Your task to perform on an android device: Open Reddit.com Image 0: 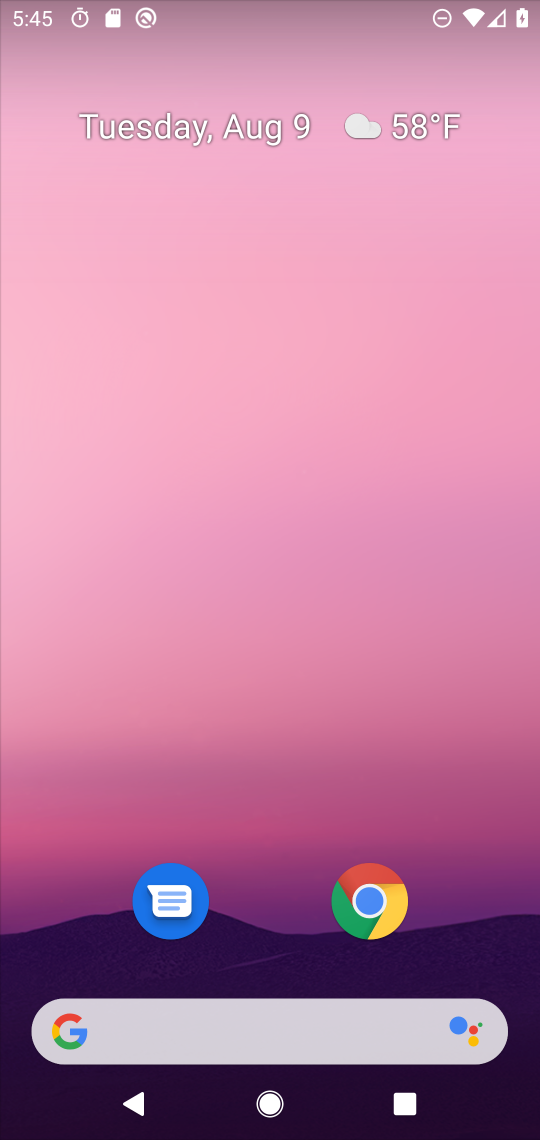
Step 0: drag from (274, 963) to (352, 49)
Your task to perform on an android device: Open Reddit.com Image 1: 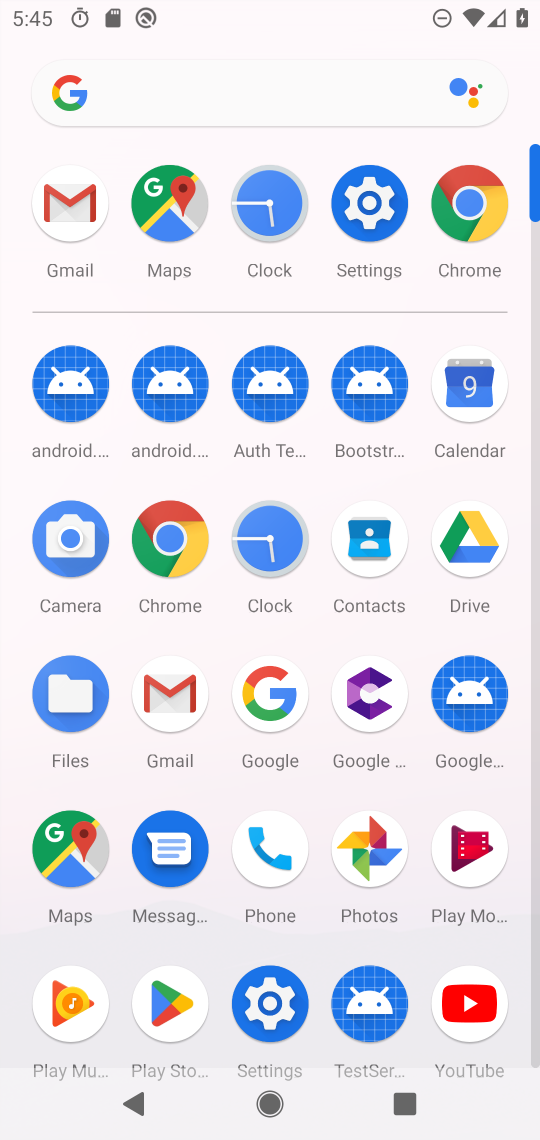
Step 1: click (174, 538)
Your task to perform on an android device: Open Reddit.com Image 2: 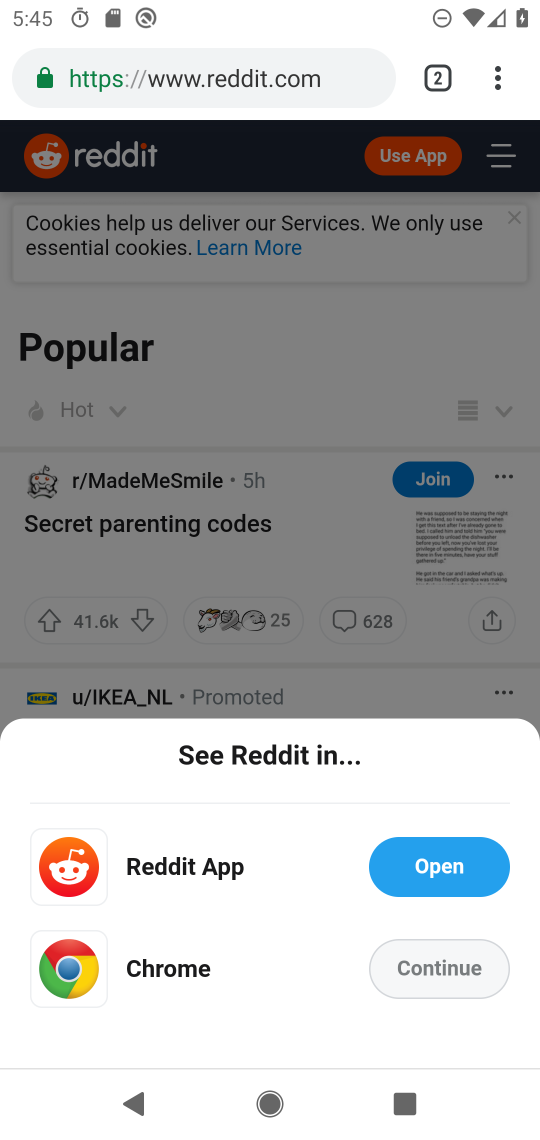
Step 2: task complete